Your task to perform on an android device: Open Chrome and go to settings Image 0: 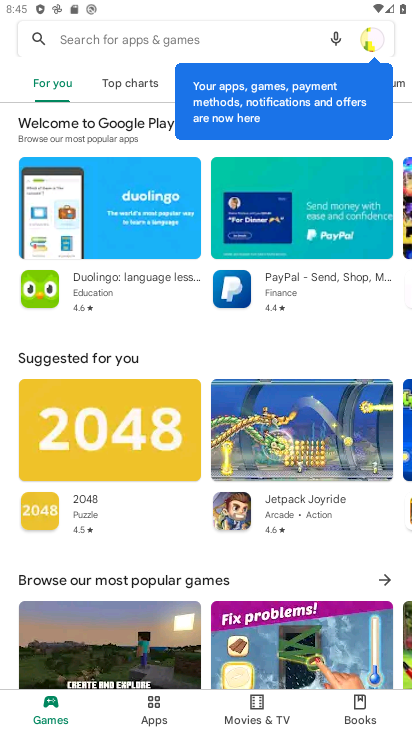
Step 0: press home button
Your task to perform on an android device: Open Chrome and go to settings Image 1: 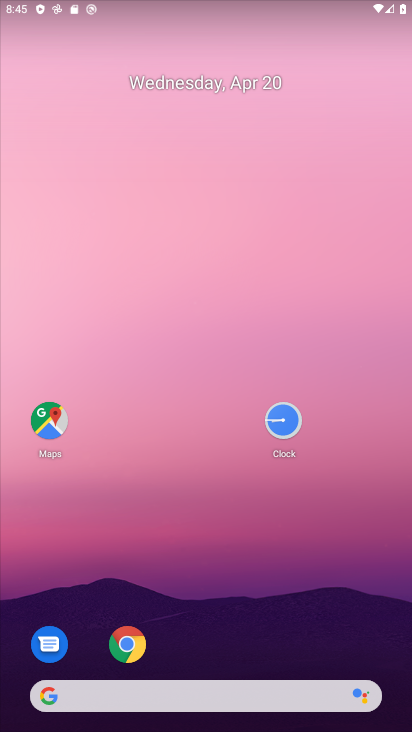
Step 1: drag from (275, 523) to (273, 76)
Your task to perform on an android device: Open Chrome and go to settings Image 2: 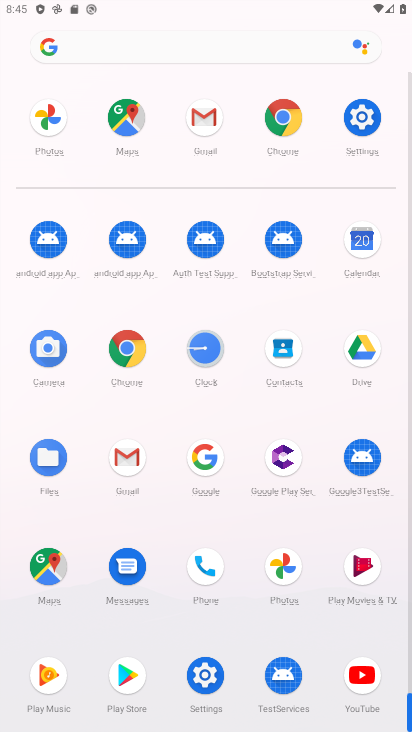
Step 2: click (133, 347)
Your task to perform on an android device: Open Chrome and go to settings Image 3: 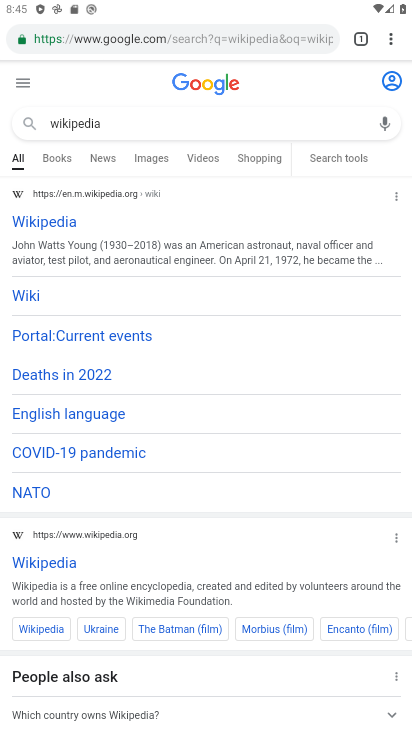
Step 3: task complete